Your task to perform on an android device: find snoozed emails in the gmail app Image 0: 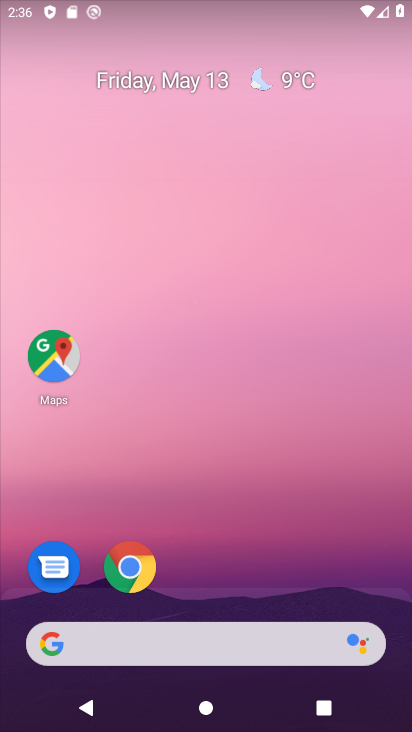
Step 0: drag from (220, 642) to (220, 11)
Your task to perform on an android device: find snoozed emails in the gmail app Image 1: 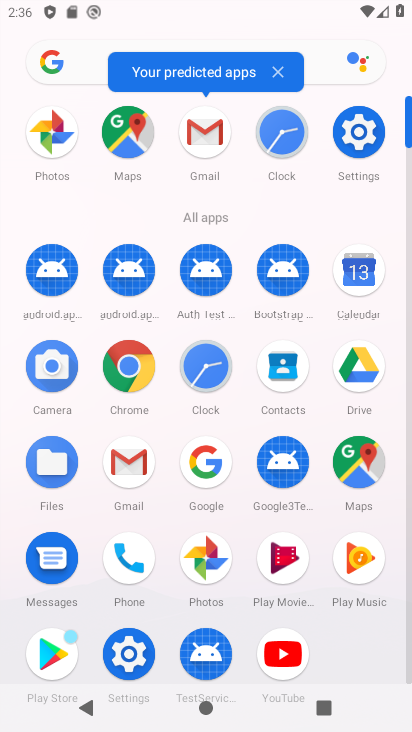
Step 1: click (143, 466)
Your task to perform on an android device: find snoozed emails in the gmail app Image 2: 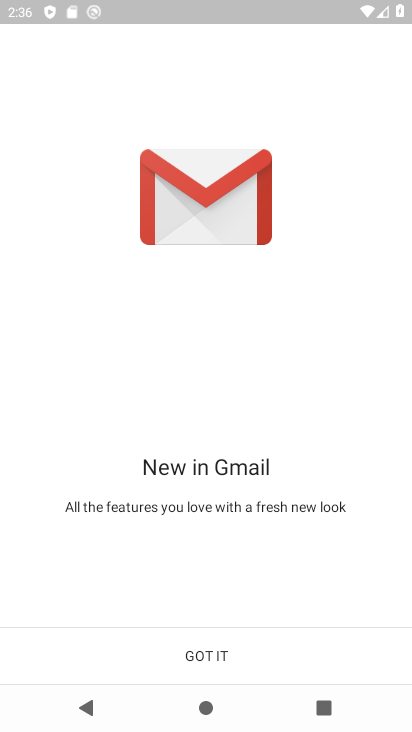
Step 2: click (244, 658)
Your task to perform on an android device: find snoozed emails in the gmail app Image 3: 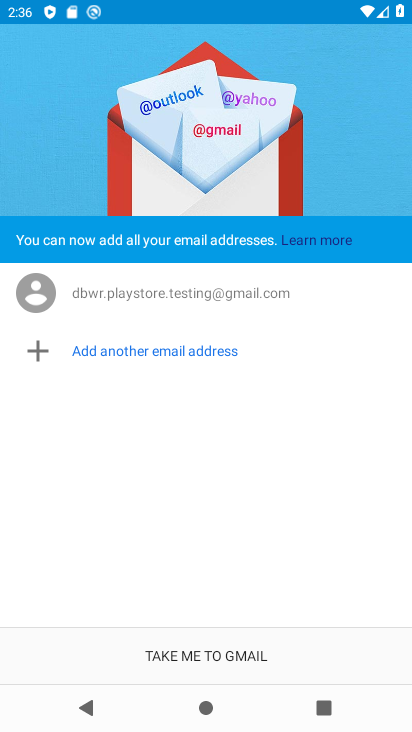
Step 3: click (244, 658)
Your task to perform on an android device: find snoozed emails in the gmail app Image 4: 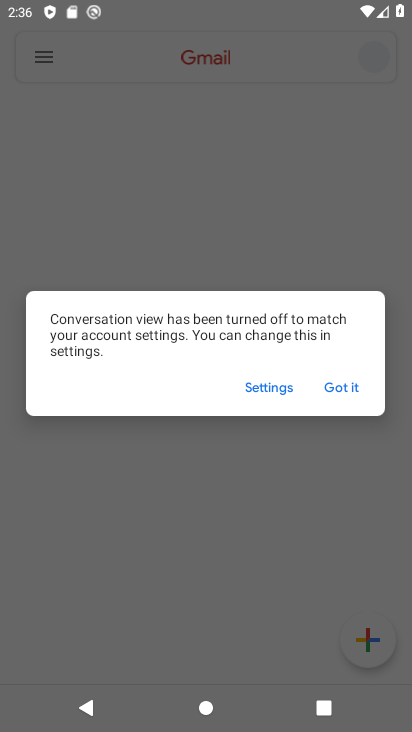
Step 4: click (335, 390)
Your task to perform on an android device: find snoozed emails in the gmail app Image 5: 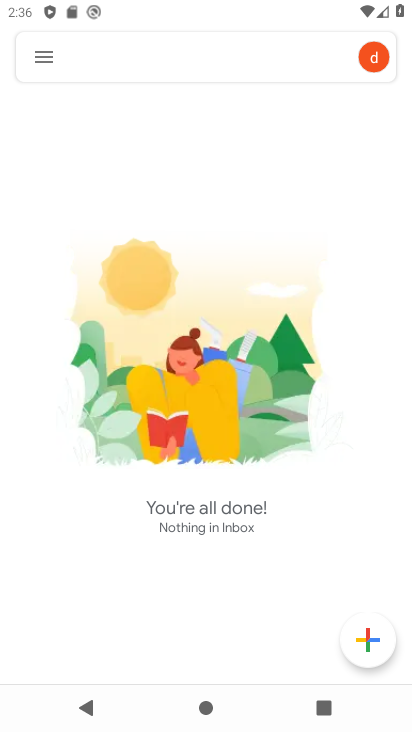
Step 5: click (43, 44)
Your task to perform on an android device: find snoozed emails in the gmail app Image 6: 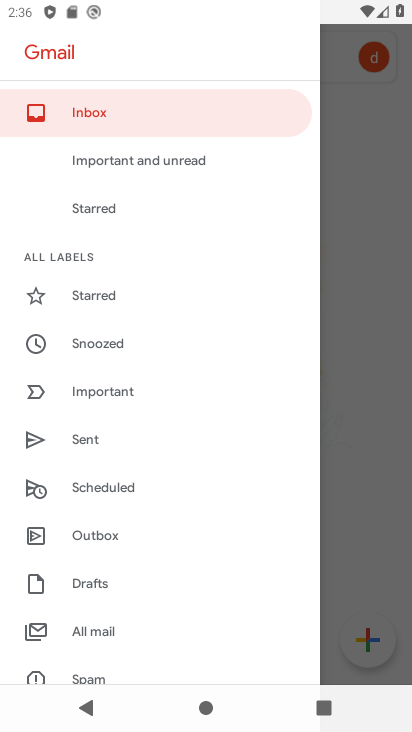
Step 6: click (93, 346)
Your task to perform on an android device: find snoozed emails in the gmail app Image 7: 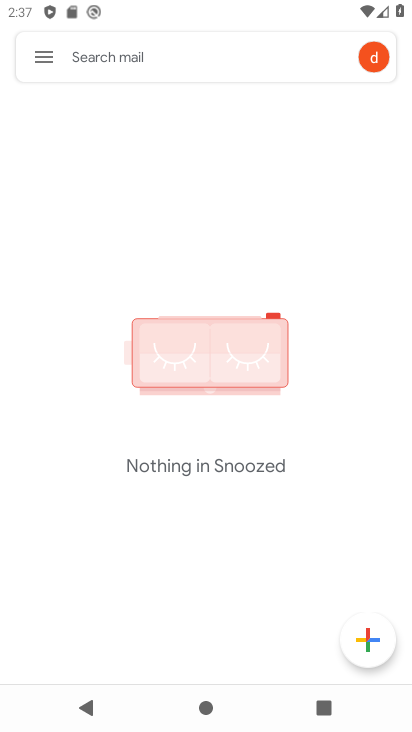
Step 7: task complete